Your task to perform on an android device: turn pop-ups off in chrome Image 0: 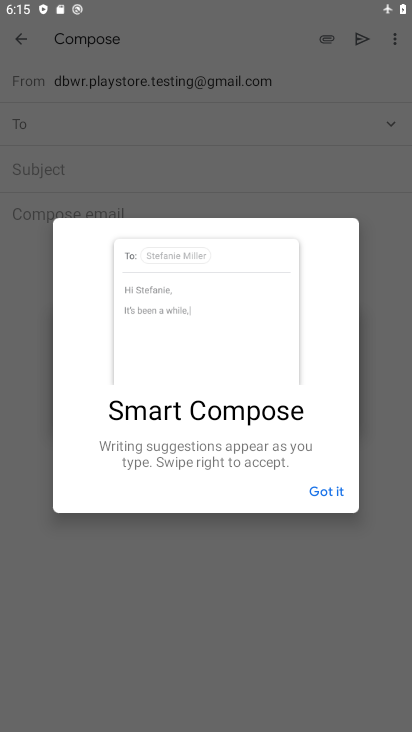
Step 0: press home button
Your task to perform on an android device: turn pop-ups off in chrome Image 1: 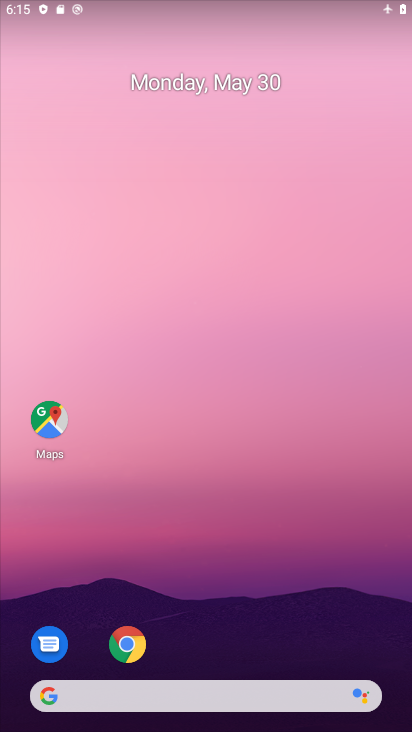
Step 1: click (133, 644)
Your task to perform on an android device: turn pop-ups off in chrome Image 2: 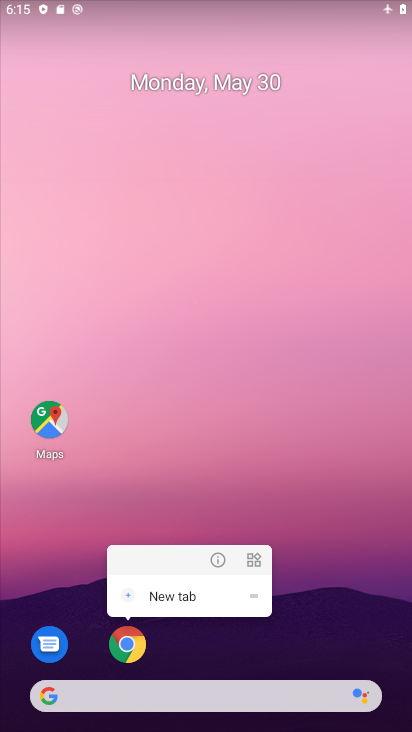
Step 2: click (127, 649)
Your task to perform on an android device: turn pop-ups off in chrome Image 3: 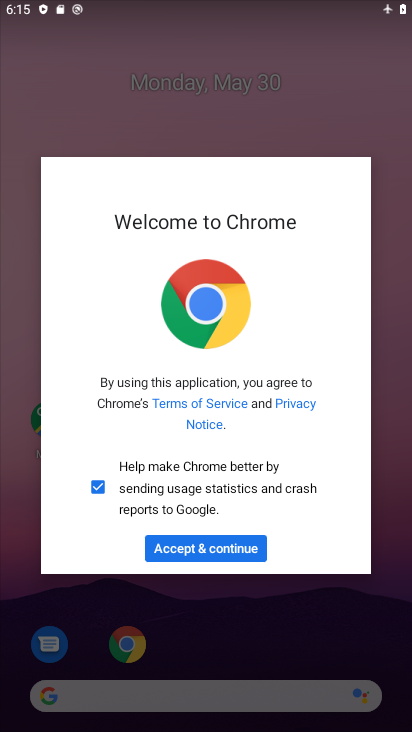
Step 3: click (187, 551)
Your task to perform on an android device: turn pop-ups off in chrome Image 4: 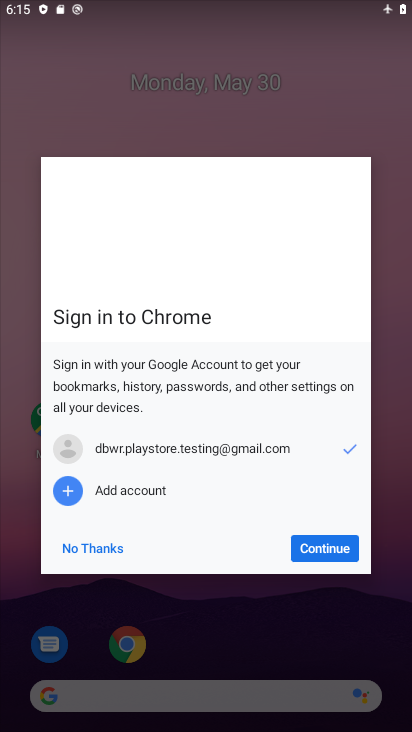
Step 4: click (304, 541)
Your task to perform on an android device: turn pop-ups off in chrome Image 5: 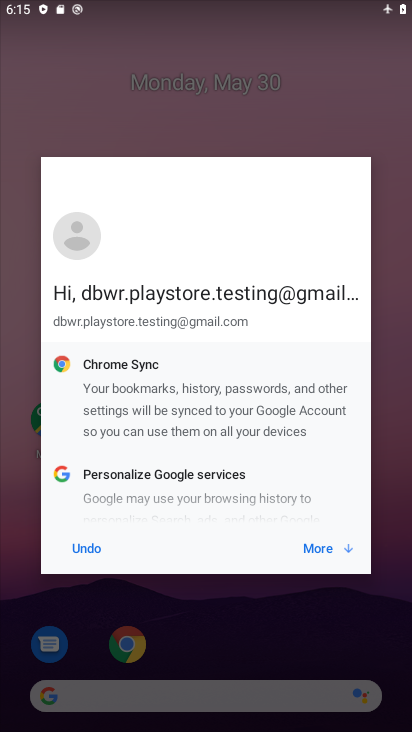
Step 5: click (324, 555)
Your task to perform on an android device: turn pop-ups off in chrome Image 6: 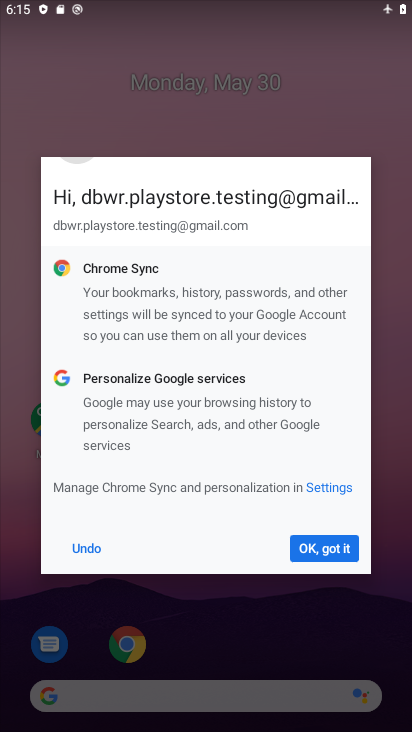
Step 6: click (324, 555)
Your task to perform on an android device: turn pop-ups off in chrome Image 7: 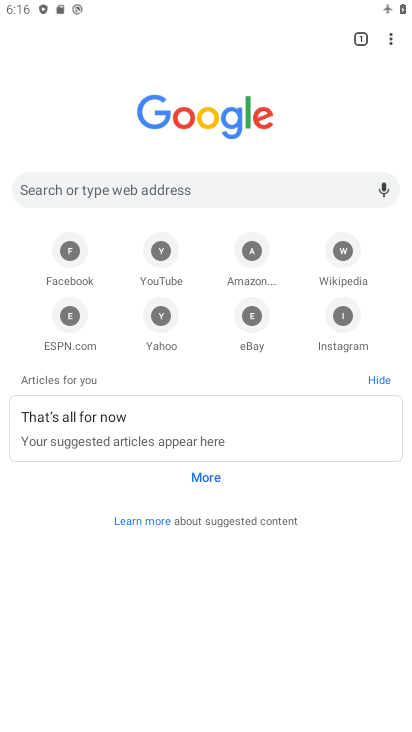
Step 7: click (389, 43)
Your task to perform on an android device: turn pop-ups off in chrome Image 8: 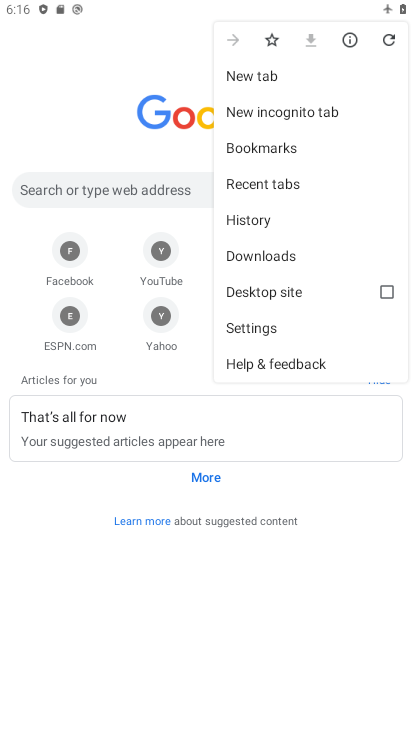
Step 8: click (272, 327)
Your task to perform on an android device: turn pop-ups off in chrome Image 9: 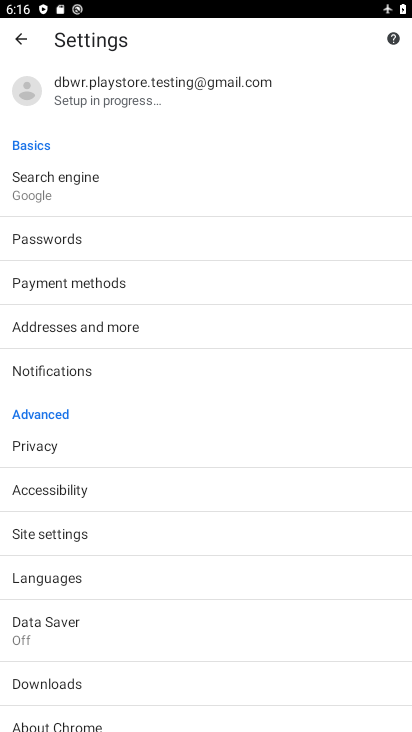
Step 9: click (54, 541)
Your task to perform on an android device: turn pop-ups off in chrome Image 10: 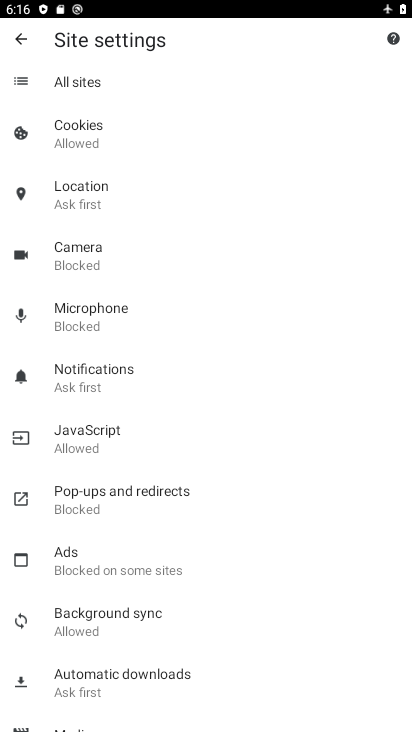
Step 10: click (105, 508)
Your task to perform on an android device: turn pop-ups off in chrome Image 11: 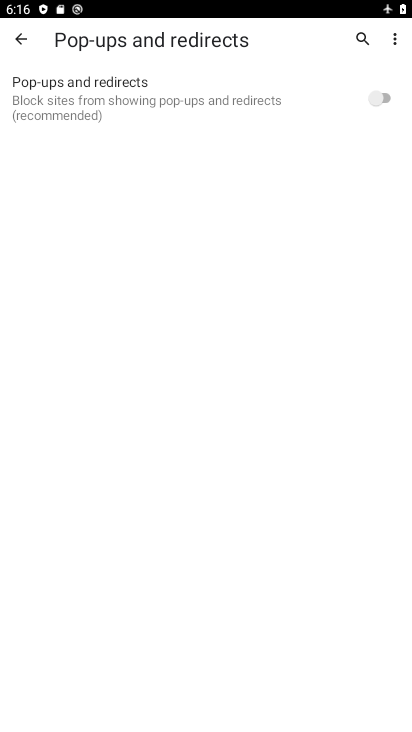
Step 11: task complete